Your task to perform on an android device: Search for usb-c to usb-b on bestbuy, select the first entry, add it to the cart, then select checkout. Image 0: 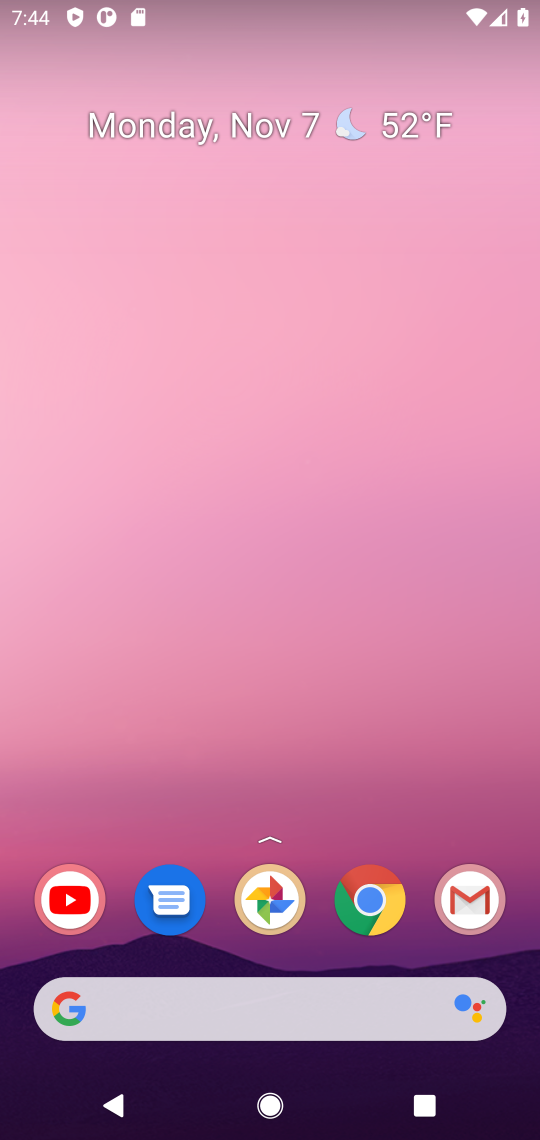
Step 0: click (279, 1027)
Your task to perform on an android device: Search for usb-c to usb-b on bestbuy, select the first entry, add it to the cart, then select checkout. Image 1: 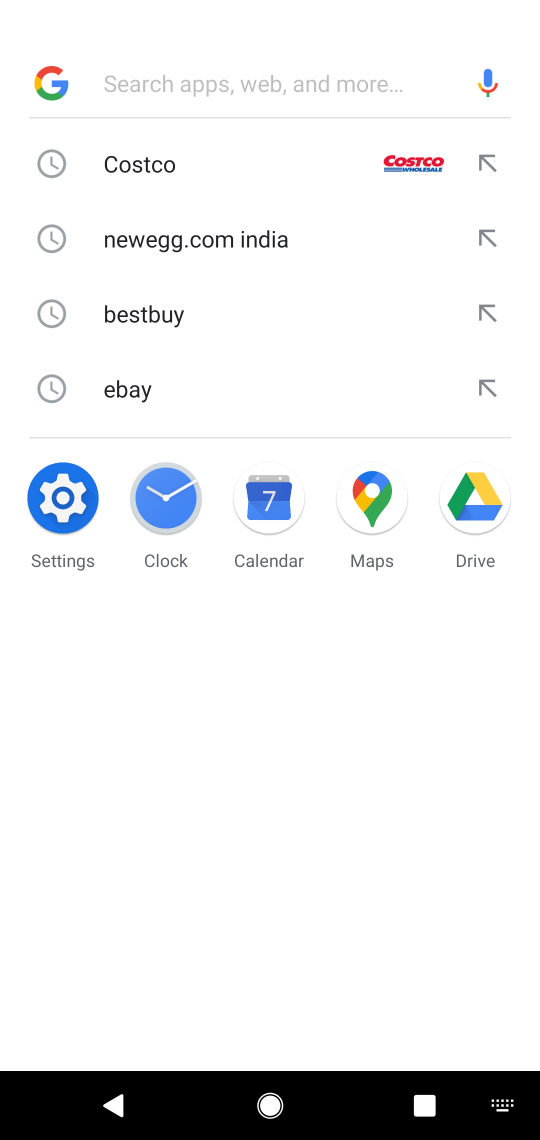
Step 1: click (260, 301)
Your task to perform on an android device: Search for usb-c to usb-b on bestbuy, select the first entry, add it to the cart, then select checkout. Image 2: 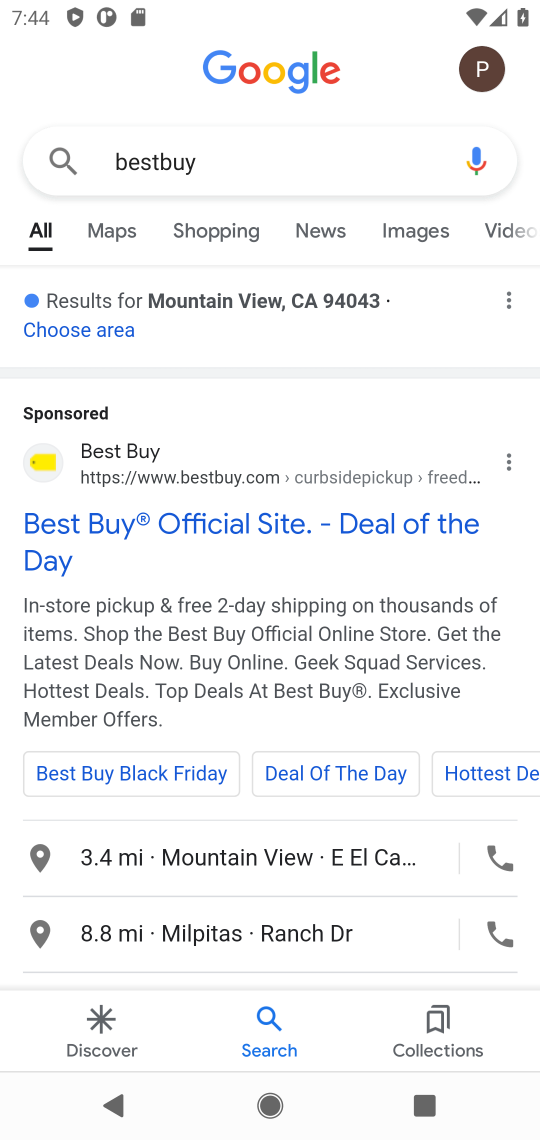
Step 2: click (134, 551)
Your task to perform on an android device: Search for usb-c to usb-b on bestbuy, select the first entry, add it to the cart, then select checkout. Image 3: 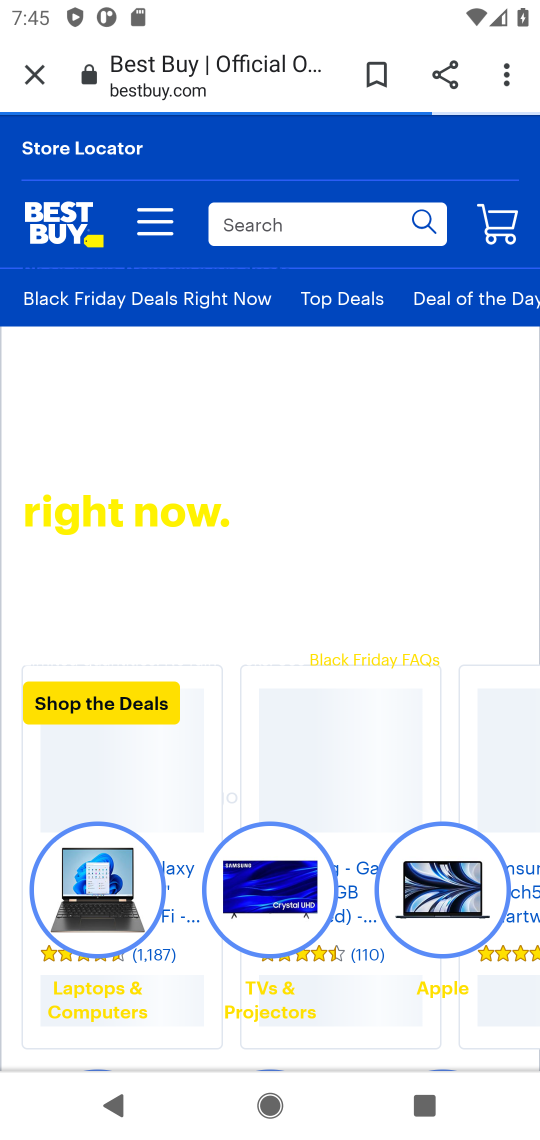
Step 3: click (331, 235)
Your task to perform on an android device: Search for usb-c to usb-b on bestbuy, select the first entry, add it to the cart, then select checkout. Image 4: 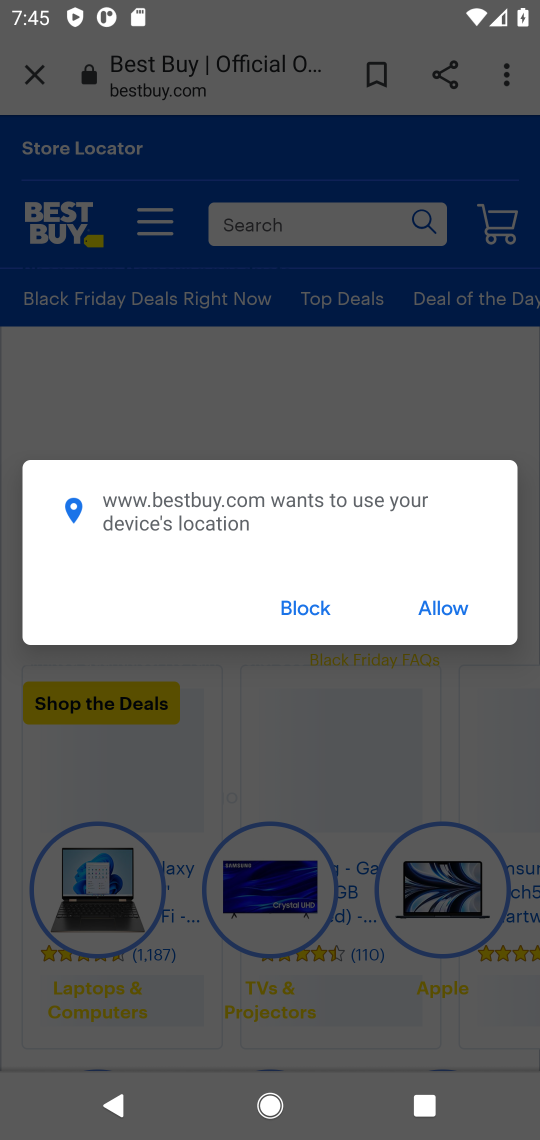
Step 4: type "ucb-c to usb-b"
Your task to perform on an android device: Search for usb-c to usb-b on bestbuy, select the first entry, add it to the cart, then select checkout. Image 5: 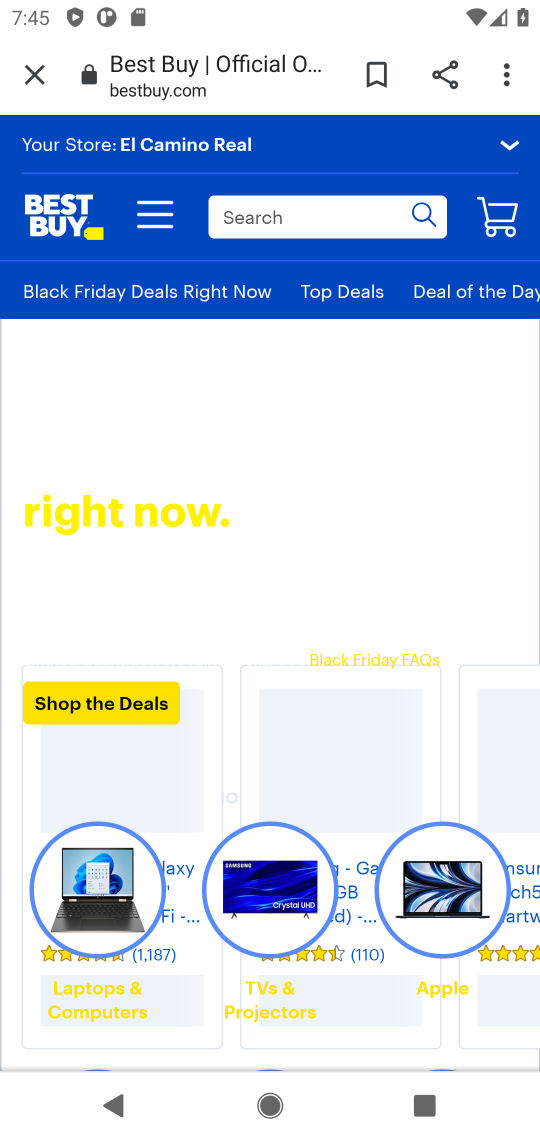
Step 5: task complete